Your task to perform on an android device: Go to privacy settings Image 0: 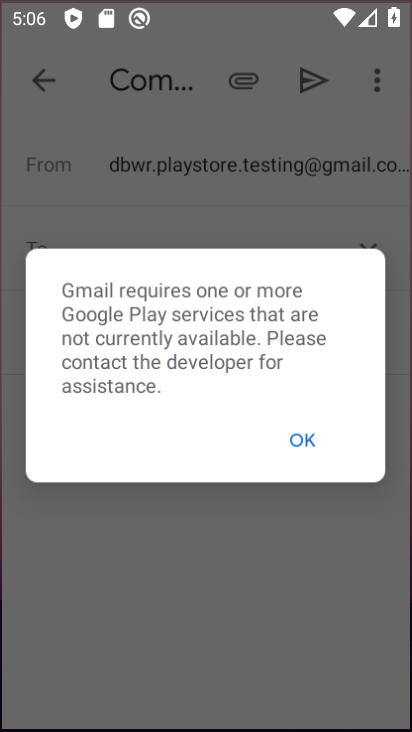
Step 0: drag from (323, 637) to (325, 200)
Your task to perform on an android device: Go to privacy settings Image 1: 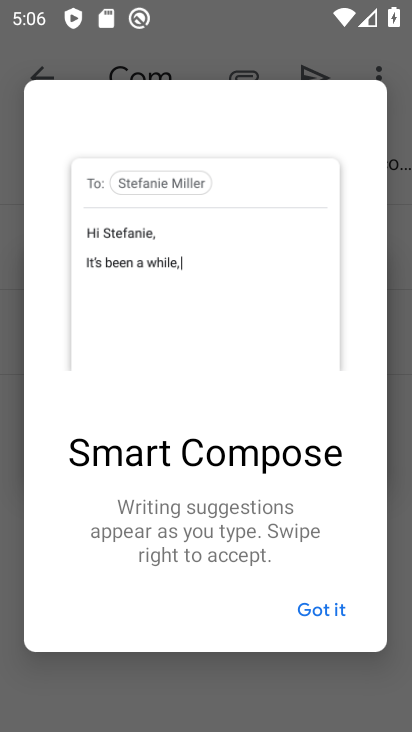
Step 1: press home button
Your task to perform on an android device: Go to privacy settings Image 2: 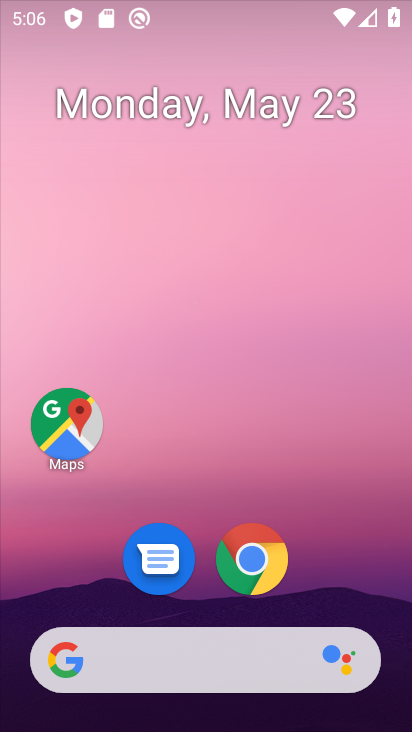
Step 2: drag from (248, 665) to (280, 87)
Your task to perform on an android device: Go to privacy settings Image 3: 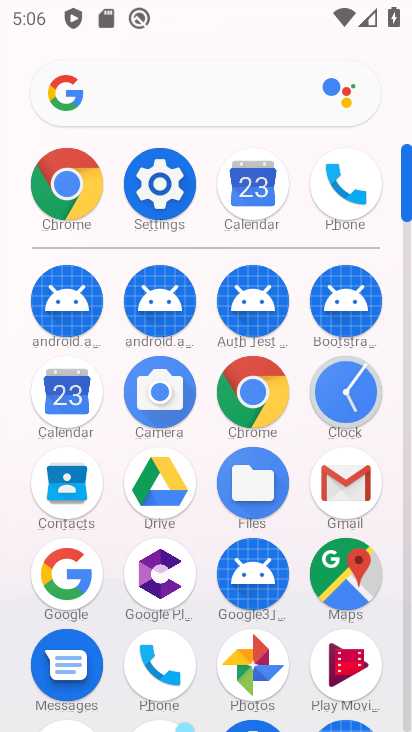
Step 3: click (144, 189)
Your task to perform on an android device: Go to privacy settings Image 4: 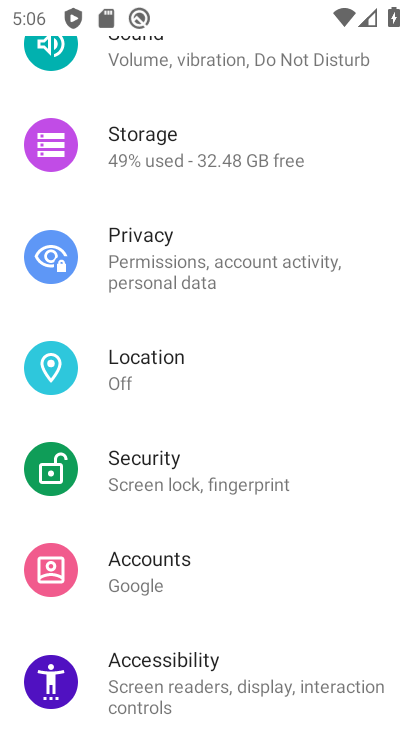
Step 4: click (158, 266)
Your task to perform on an android device: Go to privacy settings Image 5: 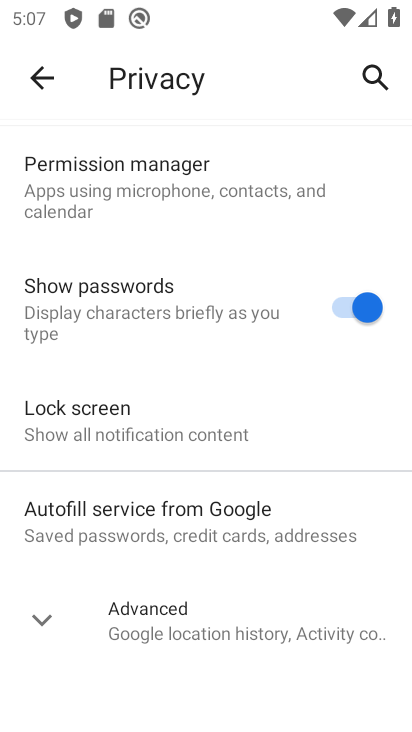
Step 5: task complete